Your task to perform on an android device: open the mobile data screen to see how much data has been used Image 0: 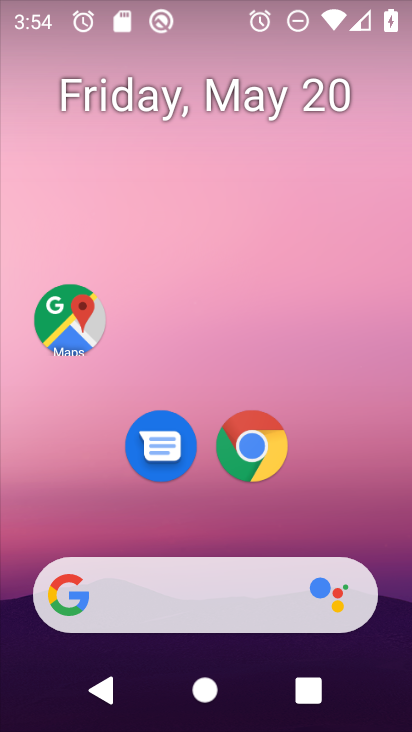
Step 0: drag from (374, 545) to (226, 729)
Your task to perform on an android device: open the mobile data screen to see how much data has been used Image 1: 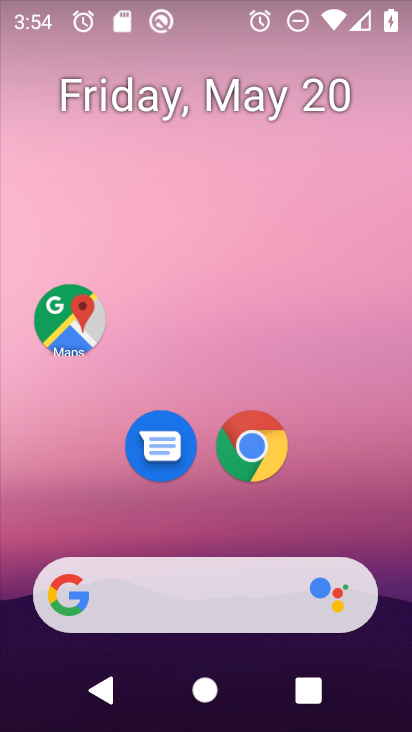
Step 1: drag from (383, 540) to (262, 13)
Your task to perform on an android device: open the mobile data screen to see how much data has been used Image 2: 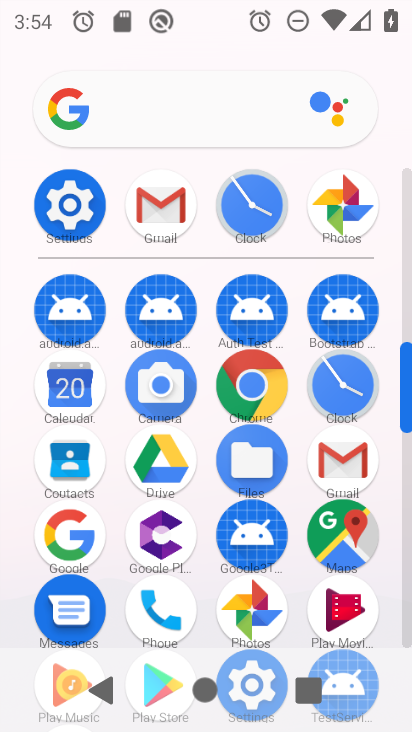
Step 2: click (60, 207)
Your task to perform on an android device: open the mobile data screen to see how much data has been used Image 3: 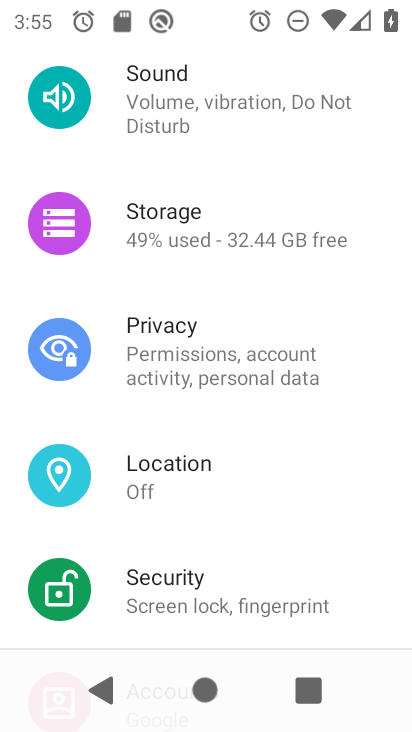
Step 3: drag from (374, 193) to (331, 523)
Your task to perform on an android device: open the mobile data screen to see how much data has been used Image 4: 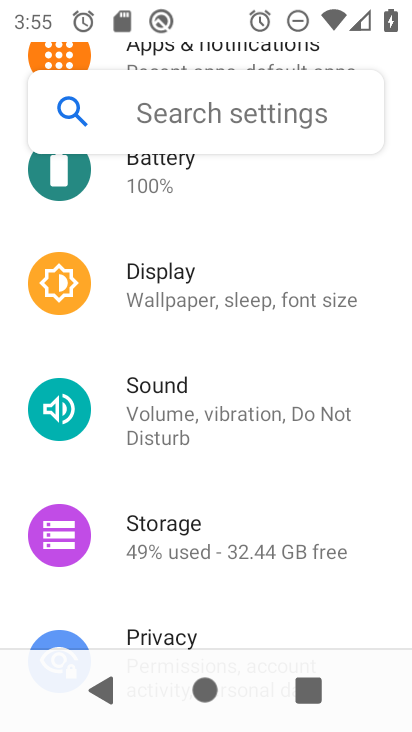
Step 4: drag from (331, 247) to (289, 567)
Your task to perform on an android device: open the mobile data screen to see how much data has been used Image 5: 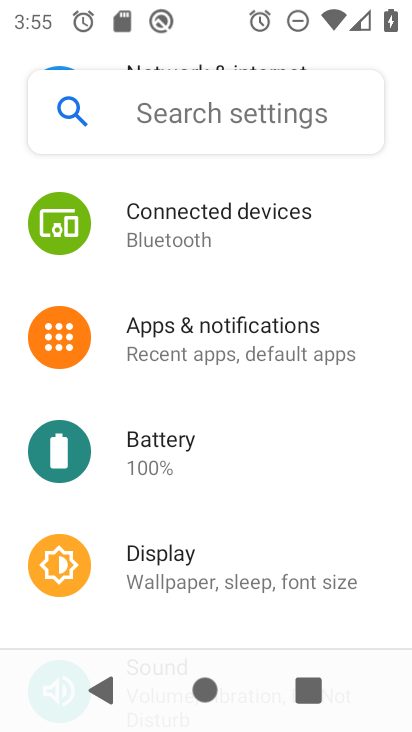
Step 5: drag from (345, 260) to (322, 674)
Your task to perform on an android device: open the mobile data screen to see how much data has been used Image 6: 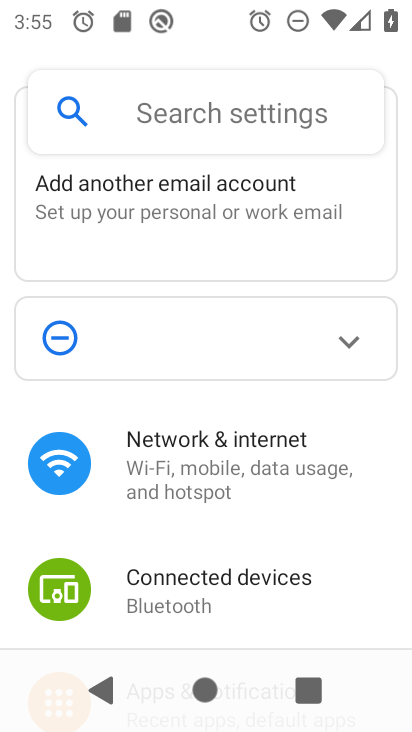
Step 6: click (191, 481)
Your task to perform on an android device: open the mobile data screen to see how much data has been used Image 7: 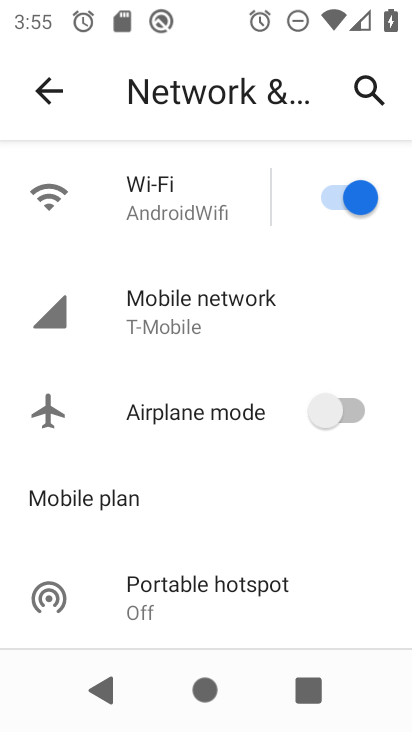
Step 7: click (161, 316)
Your task to perform on an android device: open the mobile data screen to see how much data has been used Image 8: 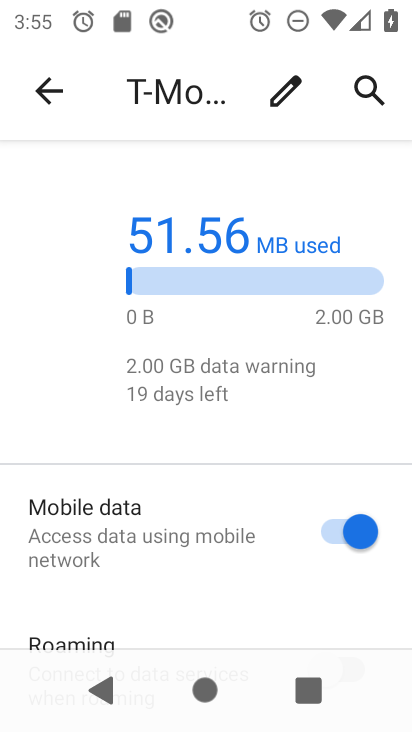
Step 8: drag from (206, 556) to (215, 102)
Your task to perform on an android device: open the mobile data screen to see how much data has been used Image 9: 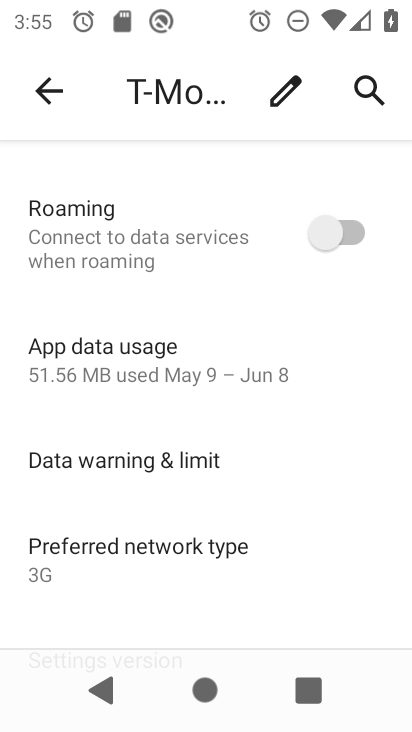
Step 9: click (138, 362)
Your task to perform on an android device: open the mobile data screen to see how much data has been used Image 10: 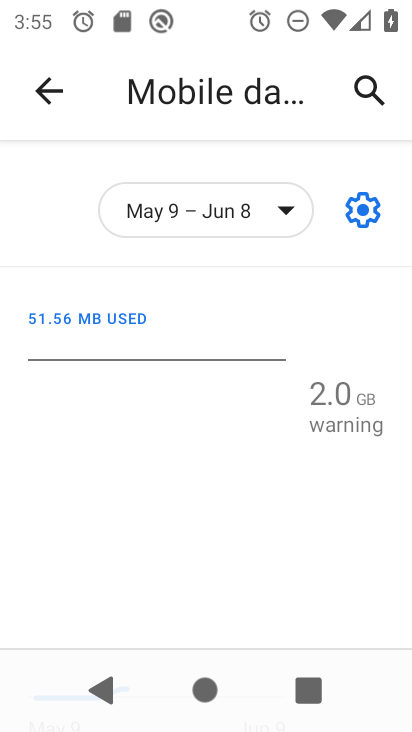
Step 10: task complete